Your task to perform on an android device: toggle sleep mode Image 0: 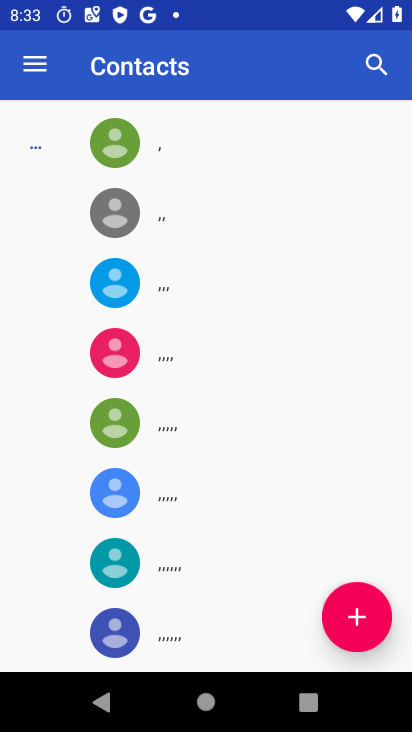
Step 0: press home button
Your task to perform on an android device: toggle sleep mode Image 1: 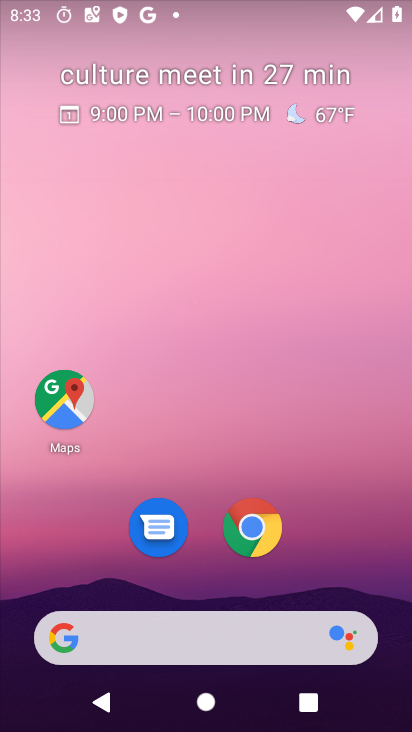
Step 1: drag from (254, 719) to (255, 182)
Your task to perform on an android device: toggle sleep mode Image 2: 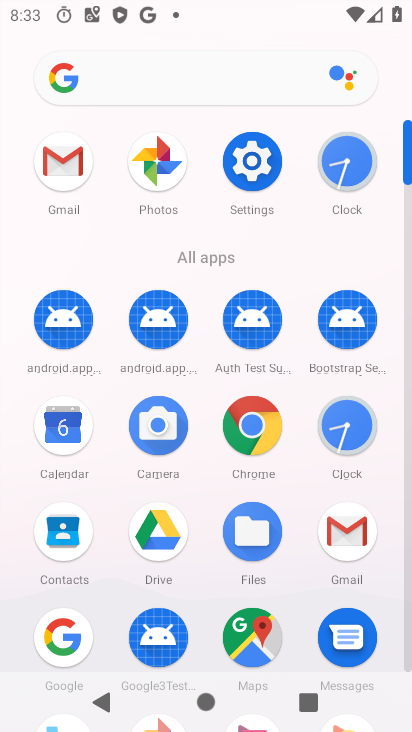
Step 2: click (256, 162)
Your task to perform on an android device: toggle sleep mode Image 3: 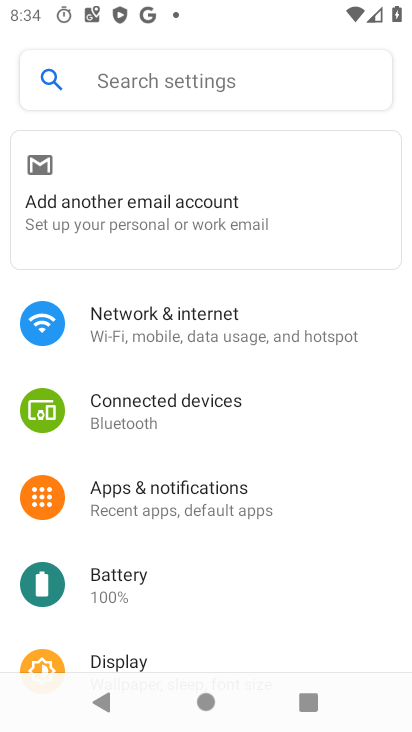
Step 3: drag from (221, 630) to (242, 296)
Your task to perform on an android device: toggle sleep mode Image 4: 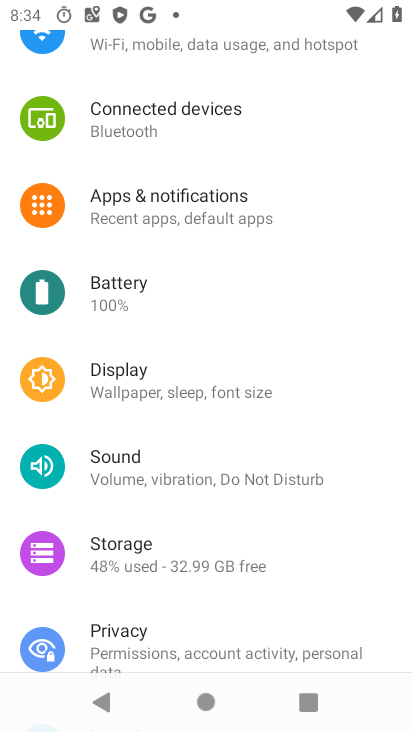
Step 4: drag from (228, 637) to (239, 286)
Your task to perform on an android device: toggle sleep mode Image 5: 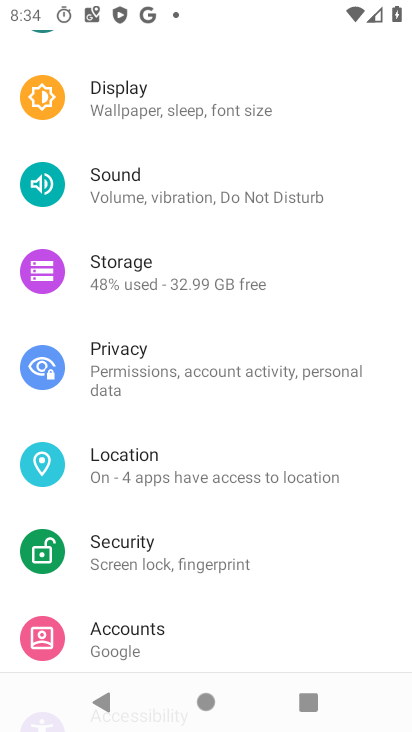
Step 5: drag from (224, 650) to (233, 275)
Your task to perform on an android device: toggle sleep mode Image 6: 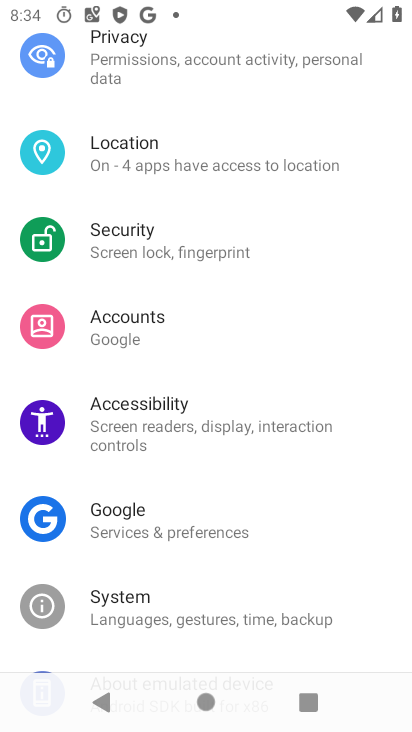
Step 6: drag from (183, 656) to (208, 263)
Your task to perform on an android device: toggle sleep mode Image 7: 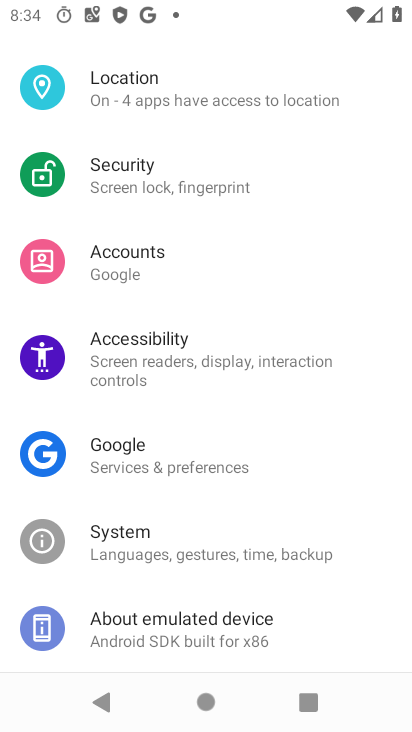
Step 7: drag from (322, 110) to (303, 578)
Your task to perform on an android device: toggle sleep mode Image 8: 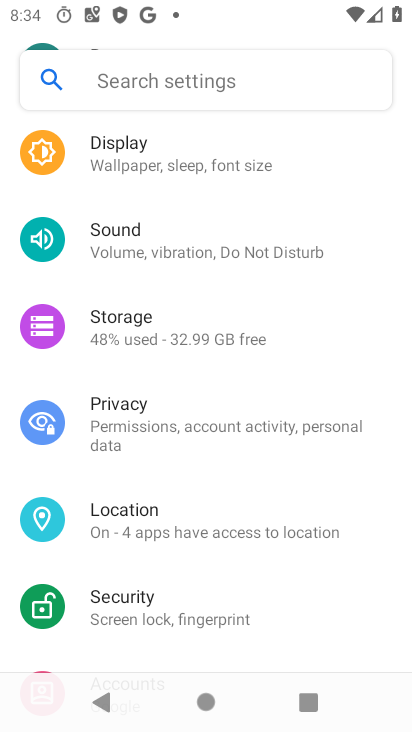
Step 8: drag from (275, 165) to (270, 527)
Your task to perform on an android device: toggle sleep mode Image 9: 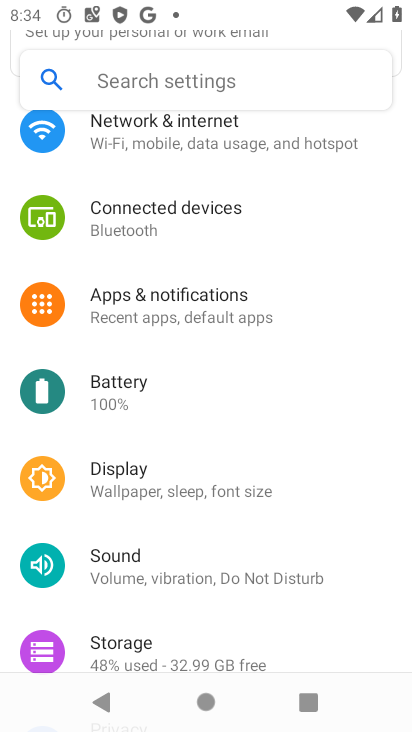
Step 9: drag from (274, 187) to (271, 598)
Your task to perform on an android device: toggle sleep mode Image 10: 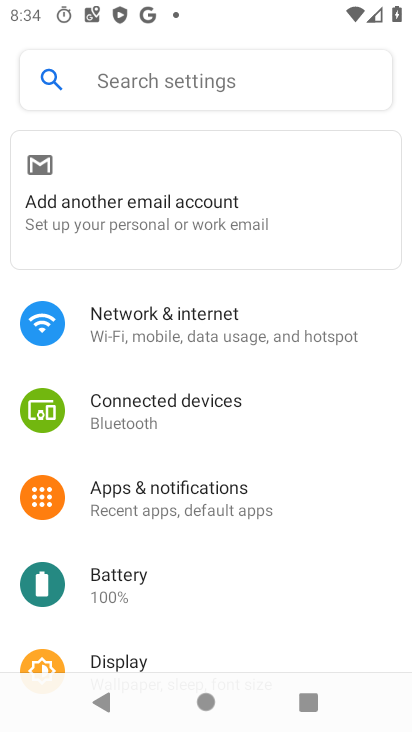
Step 10: drag from (192, 625) to (254, 264)
Your task to perform on an android device: toggle sleep mode Image 11: 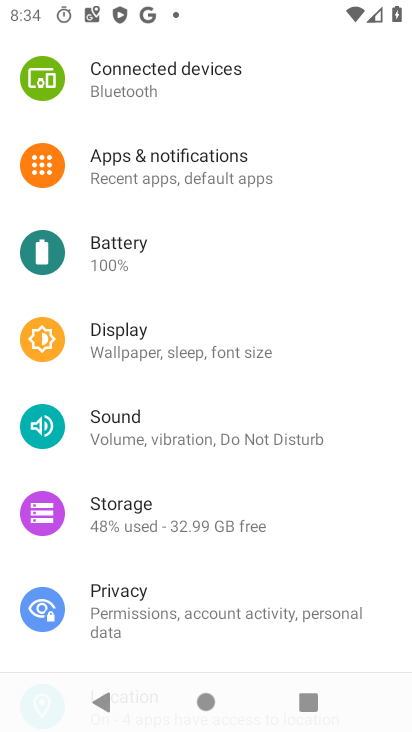
Step 11: click (229, 358)
Your task to perform on an android device: toggle sleep mode Image 12: 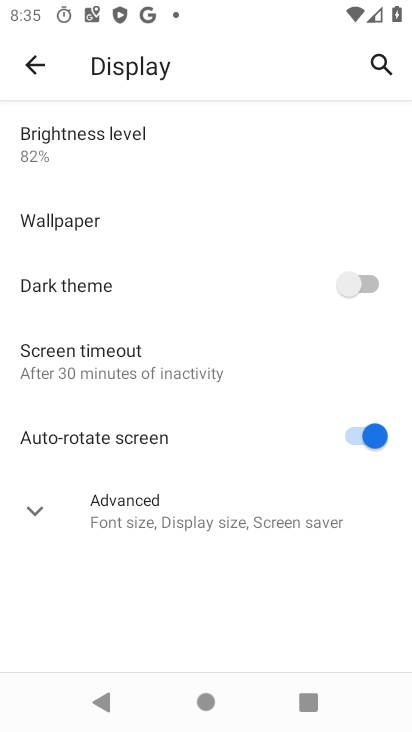
Step 12: task complete